Your task to perform on an android device: star an email in the gmail app Image 0: 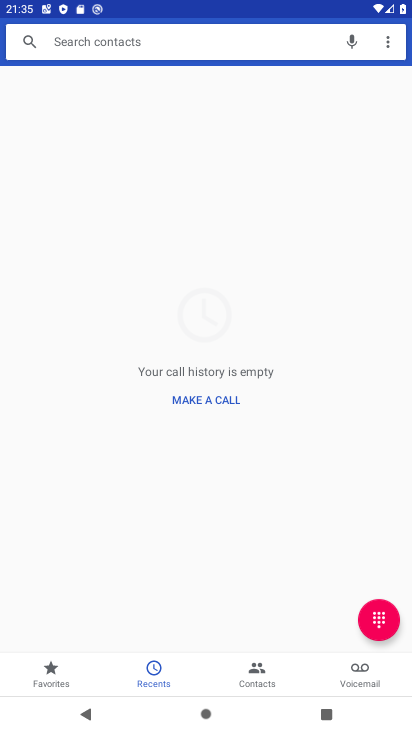
Step 0: press home button
Your task to perform on an android device: star an email in the gmail app Image 1: 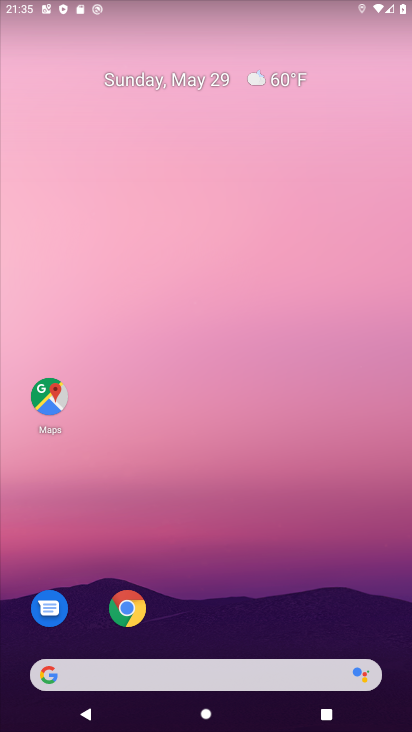
Step 1: drag from (371, 626) to (360, 316)
Your task to perform on an android device: star an email in the gmail app Image 2: 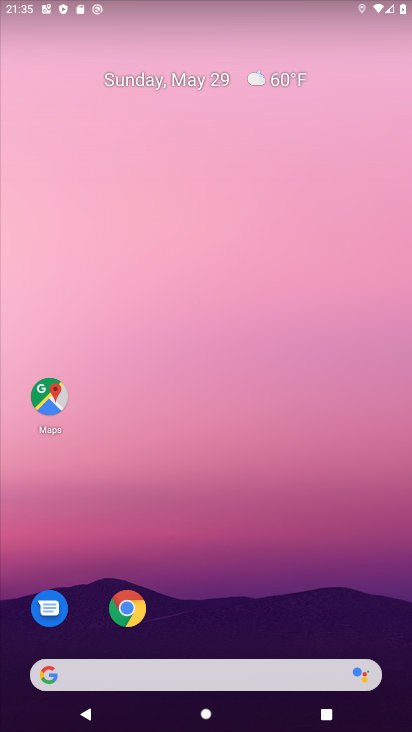
Step 2: drag from (375, 602) to (365, 170)
Your task to perform on an android device: star an email in the gmail app Image 3: 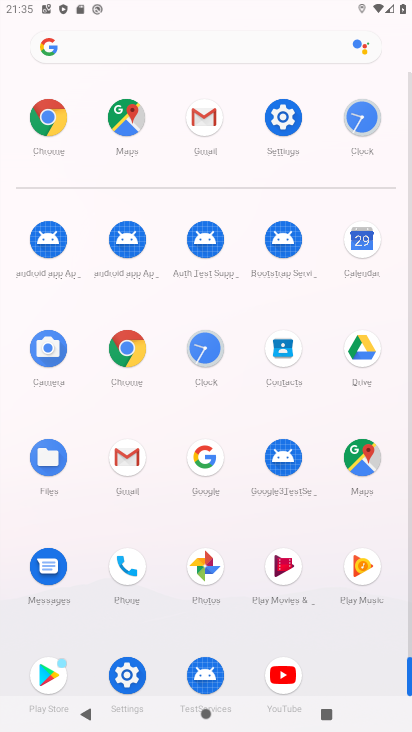
Step 3: click (132, 459)
Your task to perform on an android device: star an email in the gmail app Image 4: 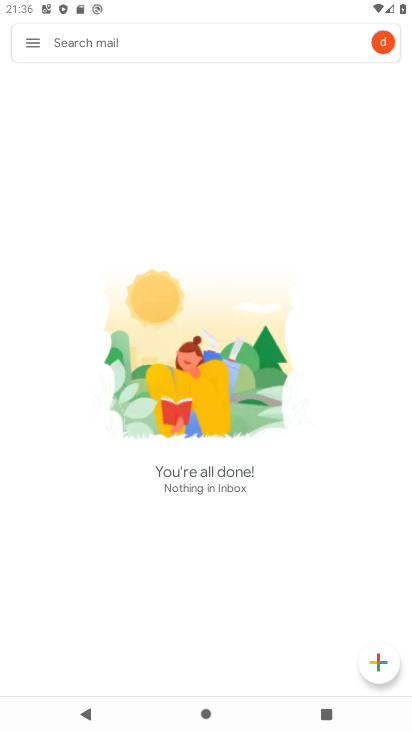
Step 4: task complete